Your task to perform on an android device: empty trash in google photos Image 0: 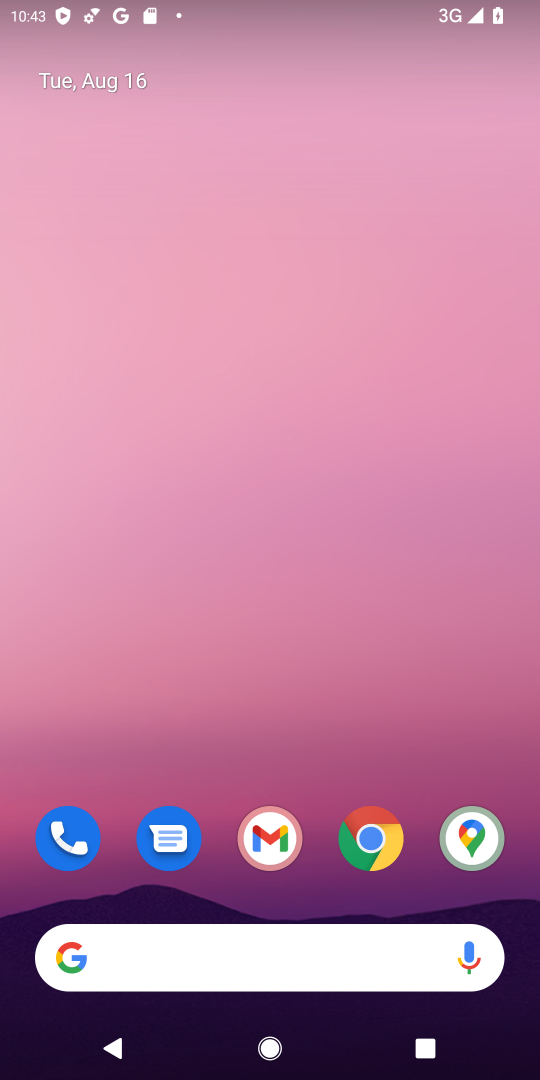
Step 0: press home button
Your task to perform on an android device: empty trash in google photos Image 1: 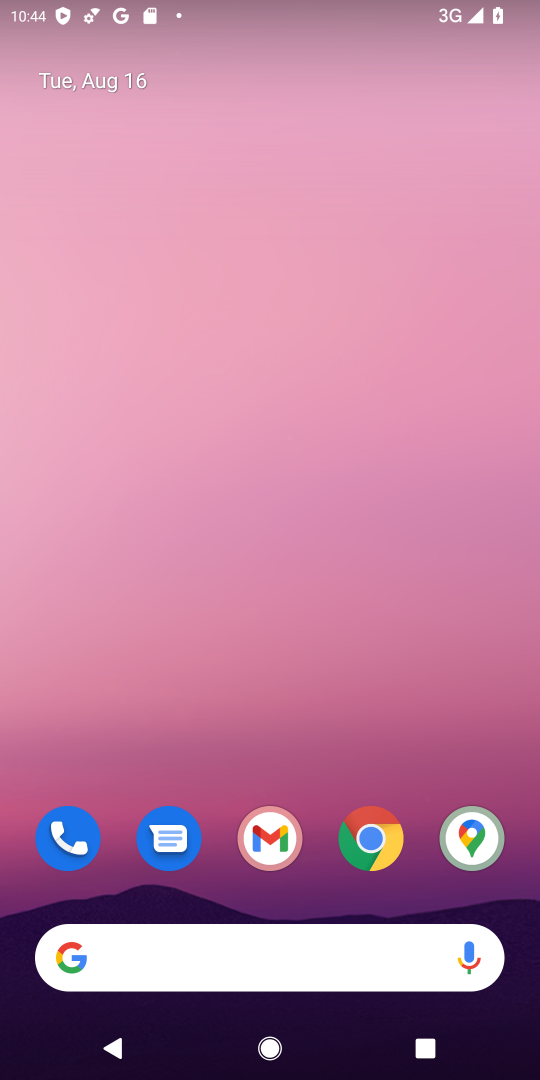
Step 1: drag from (305, 899) to (352, 280)
Your task to perform on an android device: empty trash in google photos Image 2: 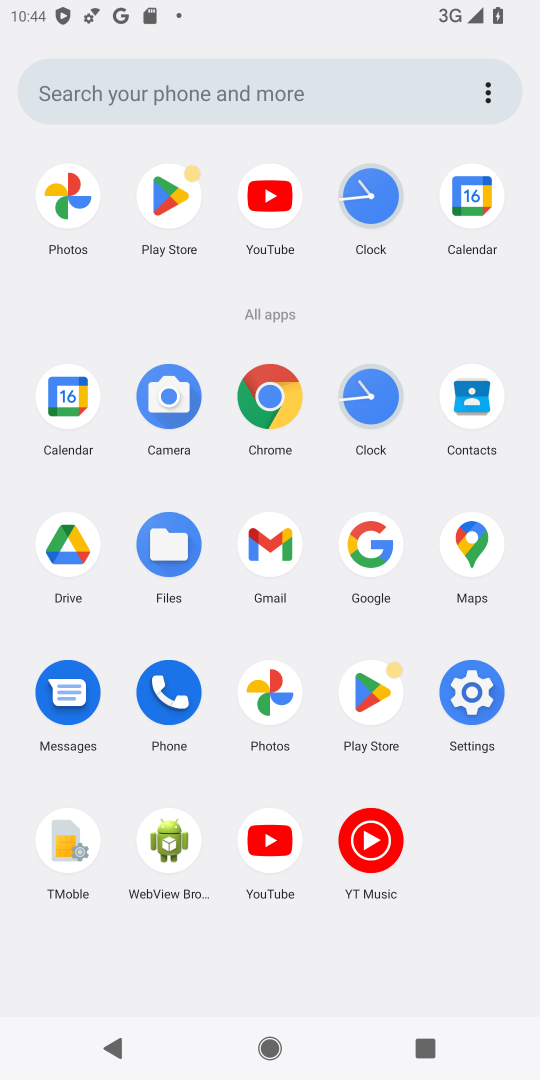
Step 2: click (262, 703)
Your task to perform on an android device: empty trash in google photos Image 3: 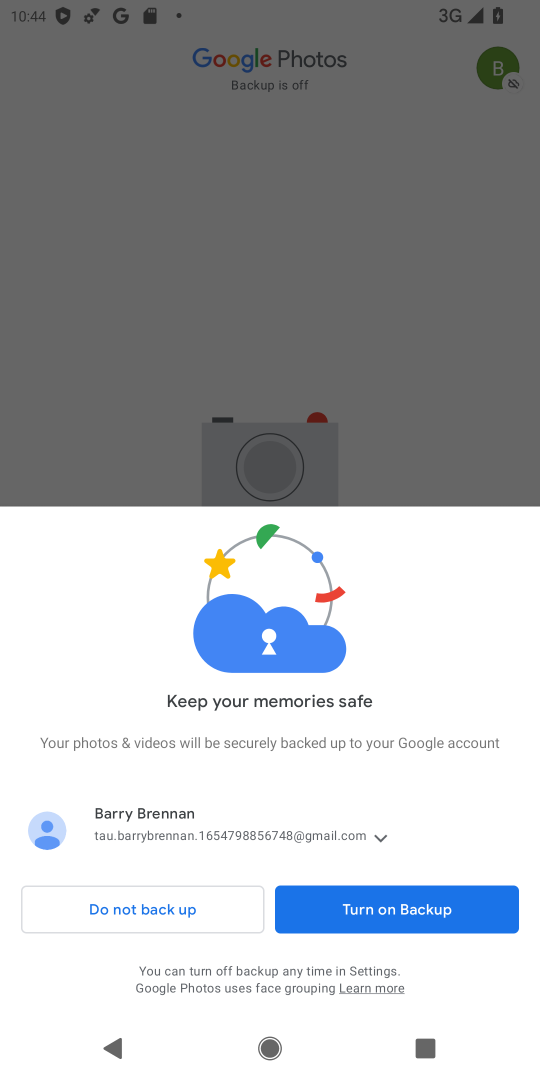
Step 3: click (175, 902)
Your task to perform on an android device: empty trash in google photos Image 4: 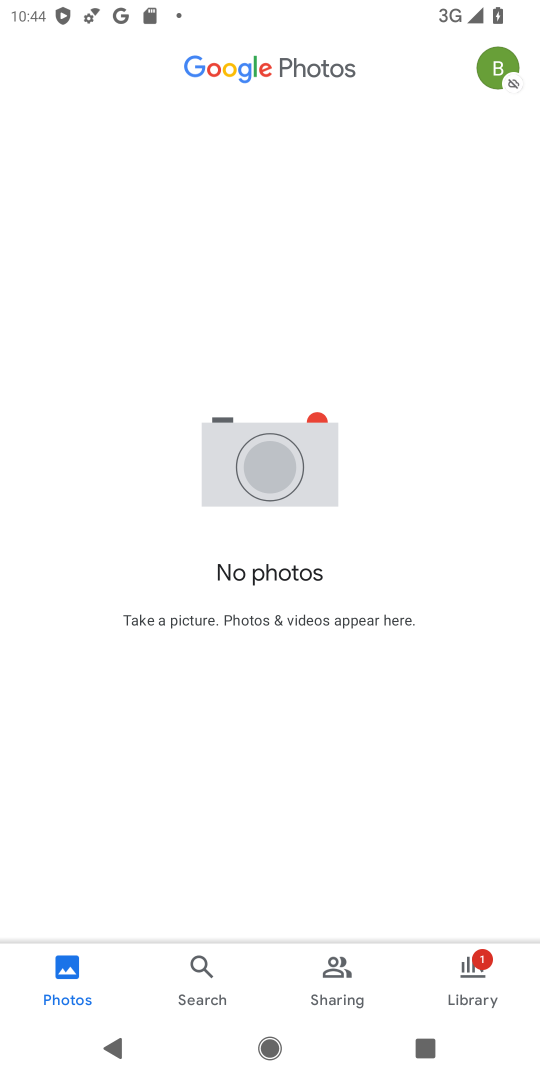
Step 4: click (477, 976)
Your task to perform on an android device: empty trash in google photos Image 5: 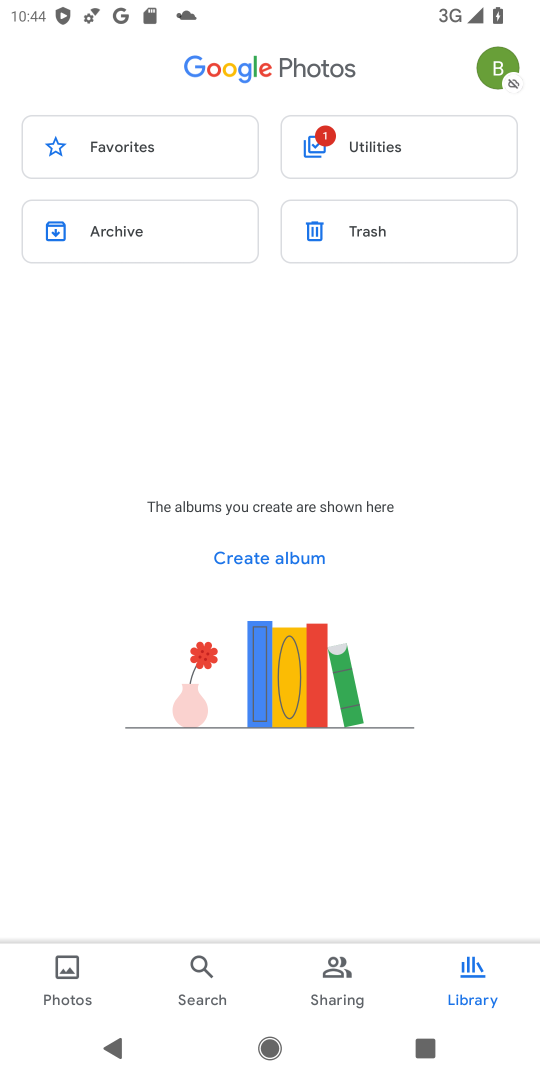
Step 5: click (336, 229)
Your task to perform on an android device: empty trash in google photos Image 6: 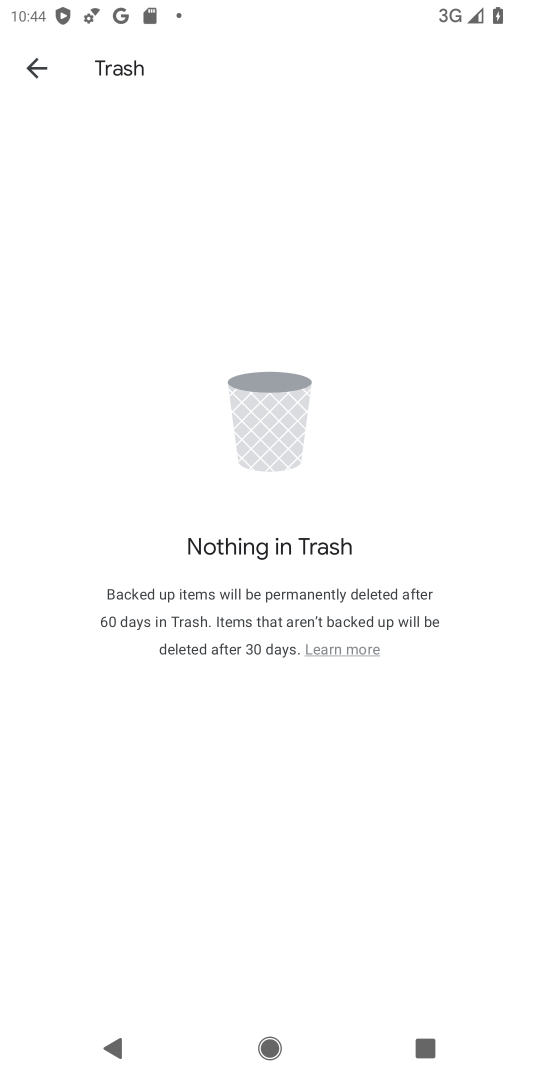
Step 6: task complete